Your task to perform on an android device: turn on notifications settings in the gmail app Image 0: 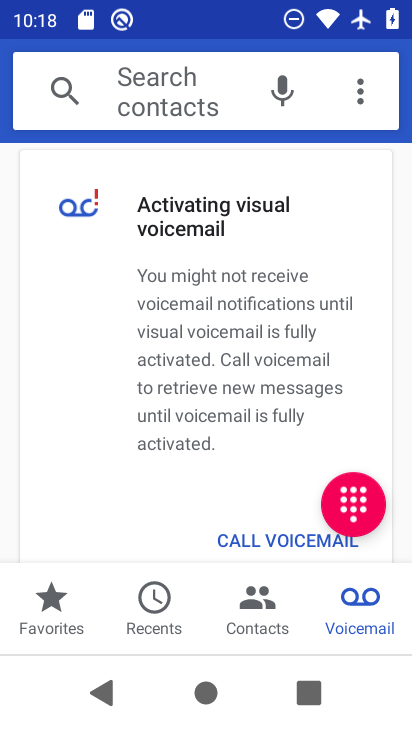
Step 0: press home button
Your task to perform on an android device: turn on notifications settings in the gmail app Image 1: 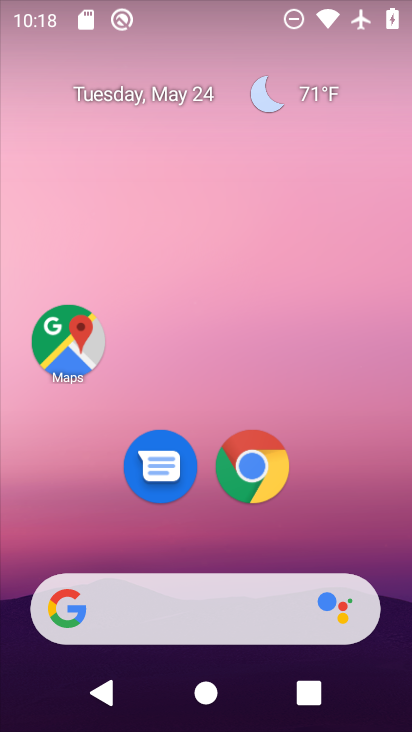
Step 1: drag from (229, 542) to (394, 415)
Your task to perform on an android device: turn on notifications settings in the gmail app Image 2: 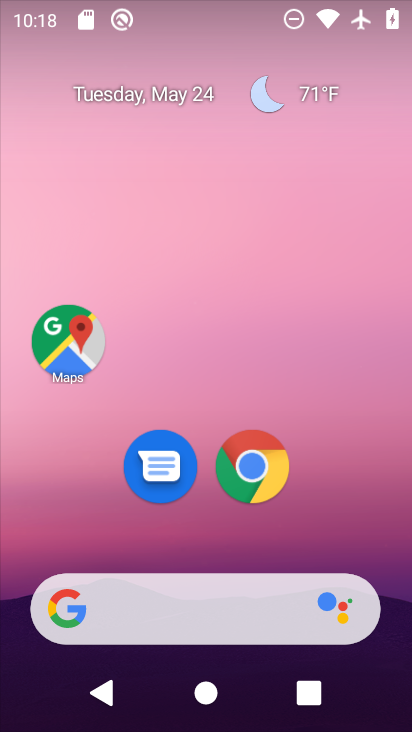
Step 2: drag from (220, 526) to (341, 10)
Your task to perform on an android device: turn on notifications settings in the gmail app Image 3: 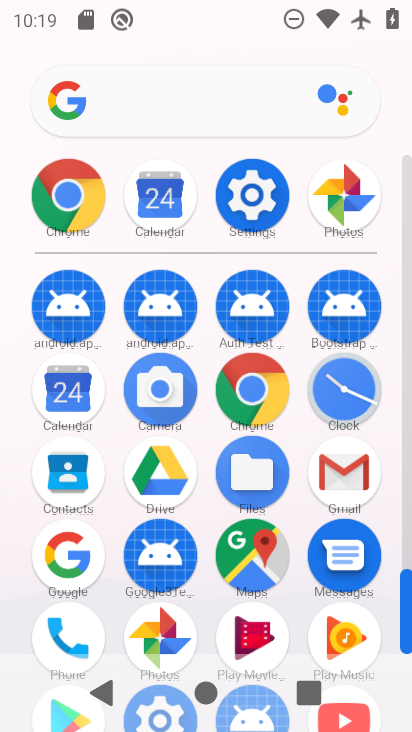
Step 3: click (354, 483)
Your task to perform on an android device: turn on notifications settings in the gmail app Image 4: 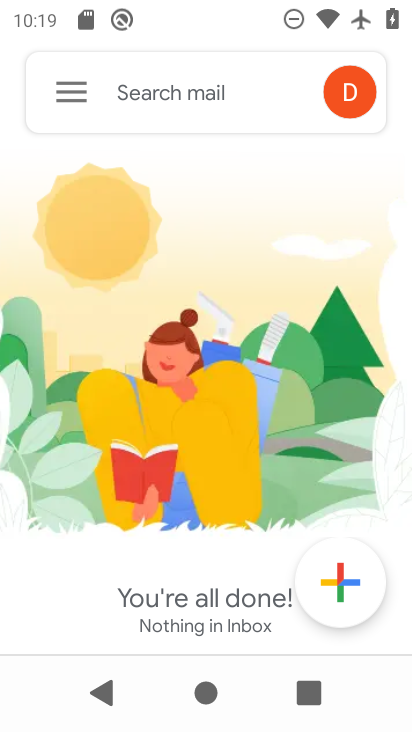
Step 4: click (85, 93)
Your task to perform on an android device: turn on notifications settings in the gmail app Image 5: 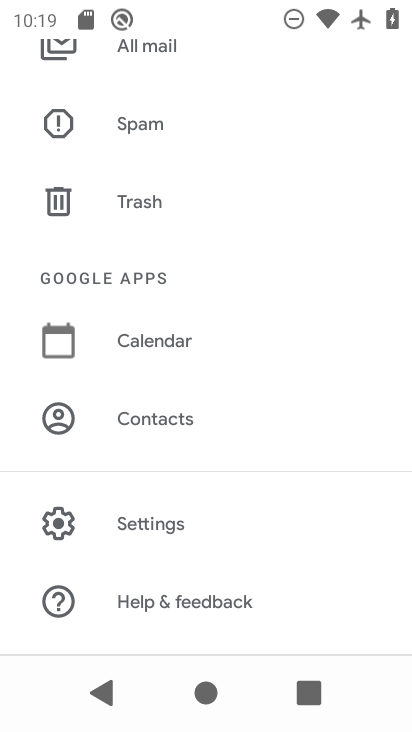
Step 5: click (156, 529)
Your task to perform on an android device: turn on notifications settings in the gmail app Image 6: 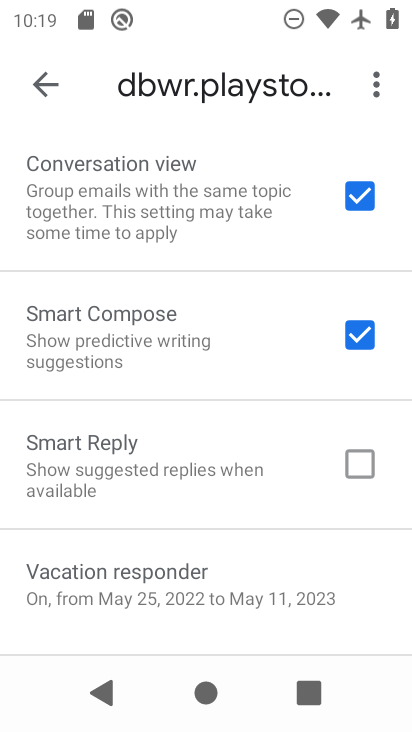
Step 6: click (39, 71)
Your task to perform on an android device: turn on notifications settings in the gmail app Image 7: 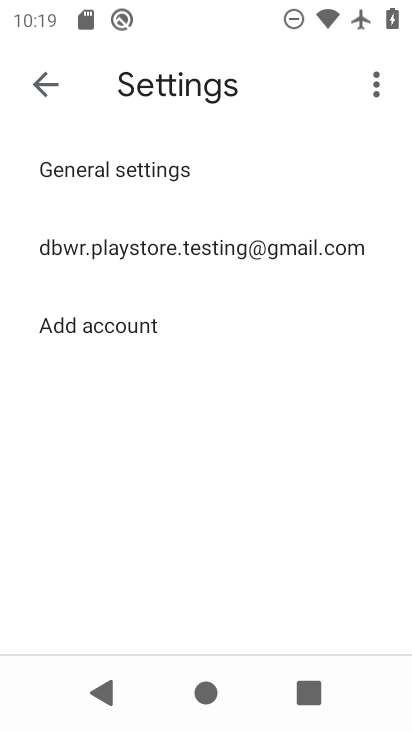
Step 7: click (159, 176)
Your task to perform on an android device: turn on notifications settings in the gmail app Image 8: 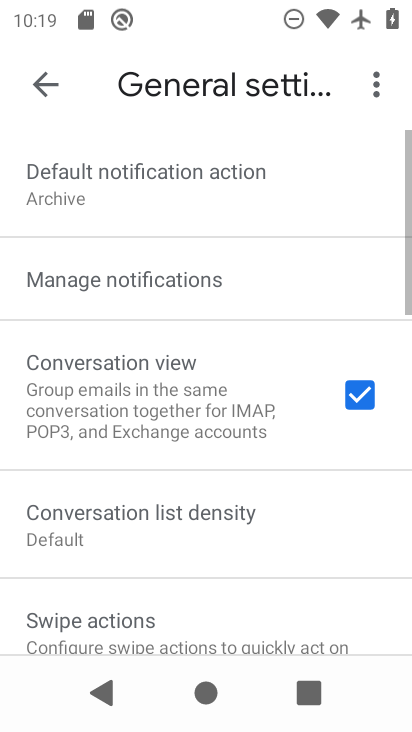
Step 8: click (191, 280)
Your task to perform on an android device: turn on notifications settings in the gmail app Image 9: 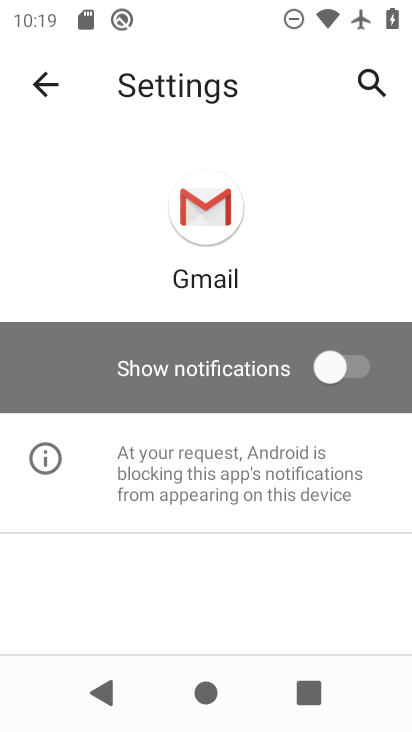
Step 9: click (373, 379)
Your task to perform on an android device: turn on notifications settings in the gmail app Image 10: 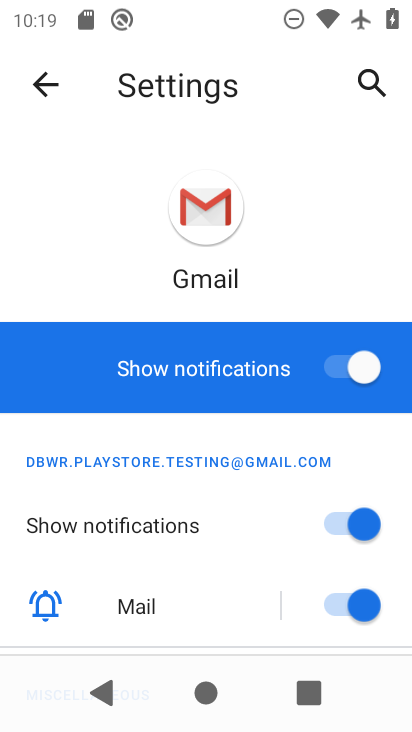
Step 10: task complete